Your task to perform on an android device: Show me popular games on the Play Store Image 0: 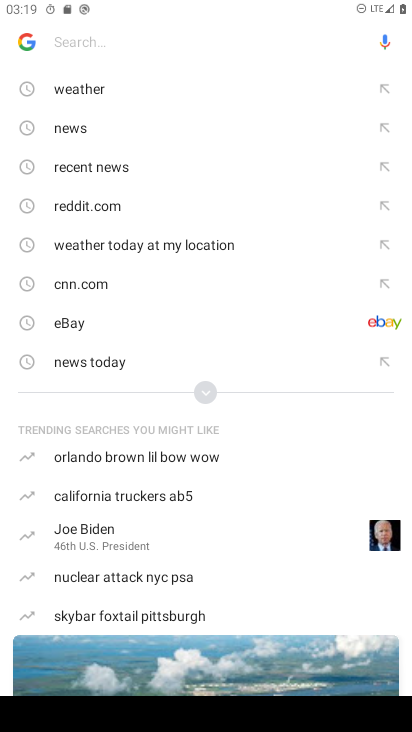
Step 0: press home button
Your task to perform on an android device: Show me popular games on the Play Store Image 1: 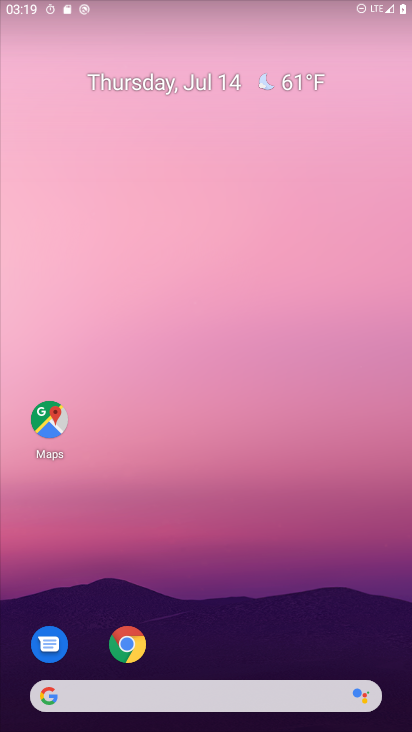
Step 1: drag from (312, 619) to (313, 36)
Your task to perform on an android device: Show me popular games on the Play Store Image 2: 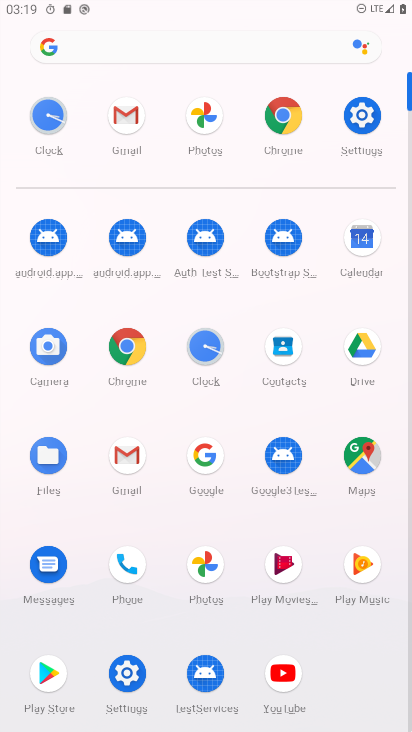
Step 2: click (46, 677)
Your task to perform on an android device: Show me popular games on the Play Store Image 3: 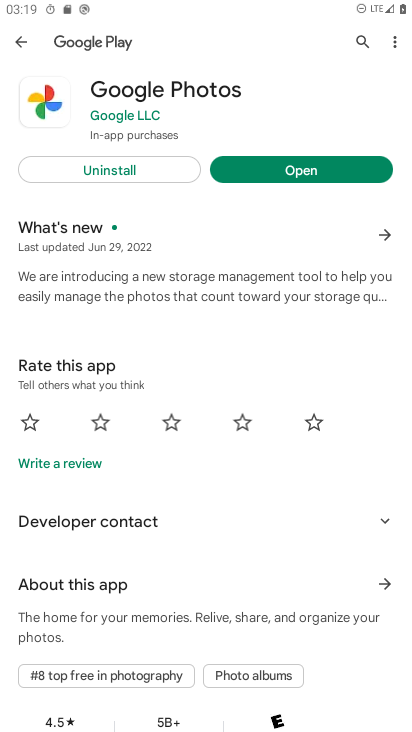
Step 3: click (22, 38)
Your task to perform on an android device: Show me popular games on the Play Store Image 4: 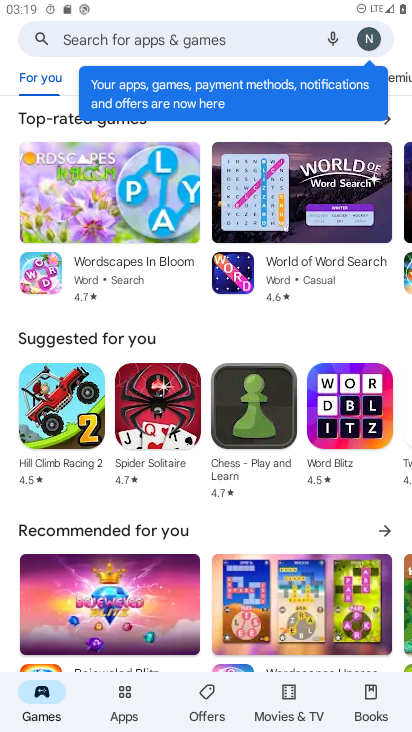
Step 4: task complete